Your task to perform on an android device: Open the calendar app, open the side menu, and click the "Day" option Image 0: 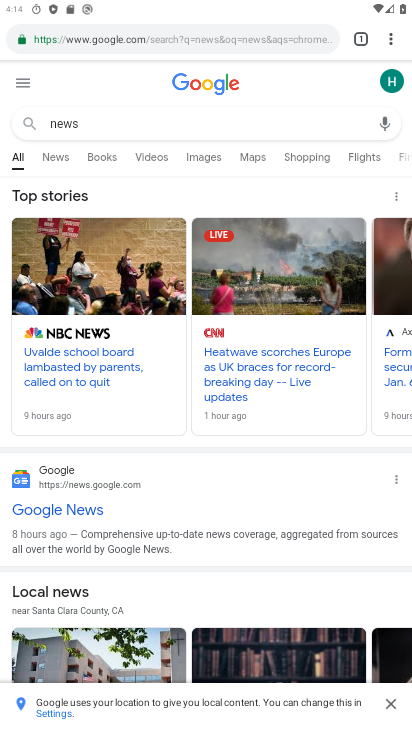
Step 0: press home button
Your task to perform on an android device: Open the calendar app, open the side menu, and click the "Day" option Image 1: 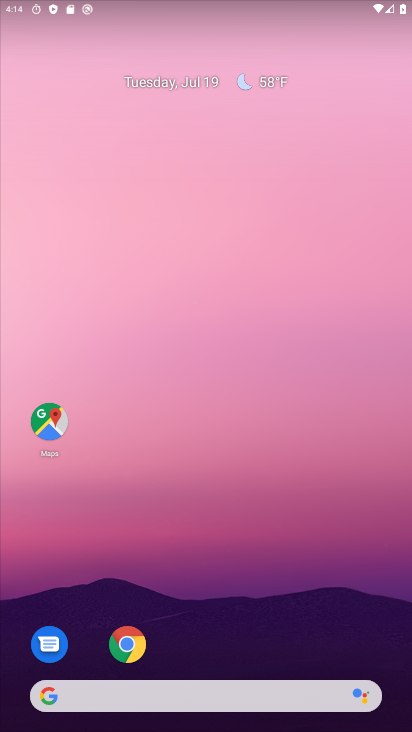
Step 1: drag from (332, 626) to (301, 54)
Your task to perform on an android device: Open the calendar app, open the side menu, and click the "Day" option Image 2: 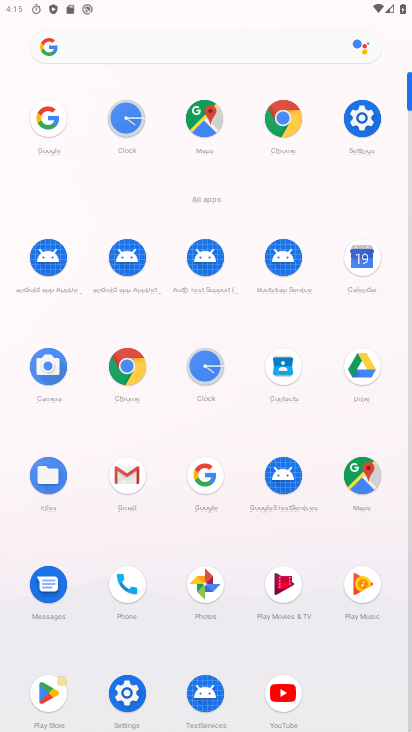
Step 2: click (350, 256)
Your task to perform on an android device: Open the calendar app, open the side menu, and click the "Day" option Image 3: 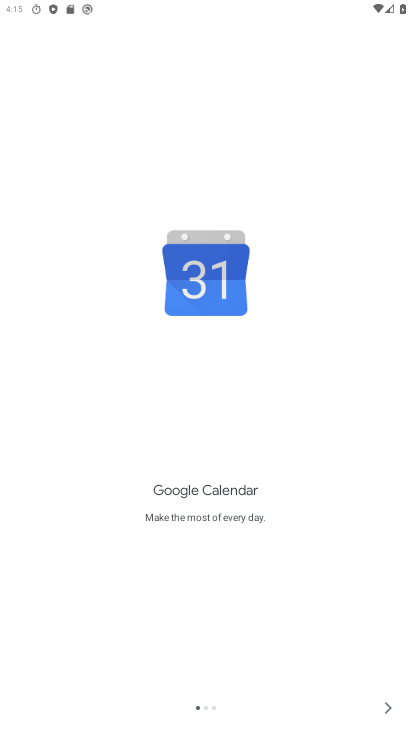
Step 3: click (391, 710)
Your task to perform on an android device: Open the calendar app, open the side menu, and click the "Day" option Image 4: 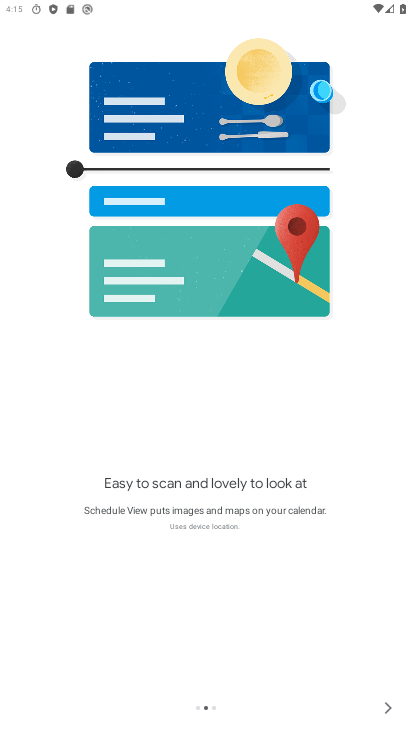
Step 4: click (391, 705)
Your task to perform on an android device: Open the calendar app, open the side menu, and click the "Day" option Image 5: 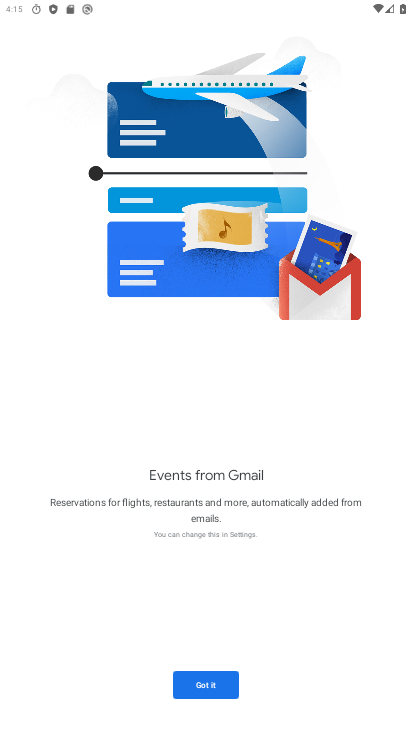
Step 5: click (229, 698)
Your task to perform on an android device: Open the calendar app, open the side menu, and click the "Day" option Image 6: 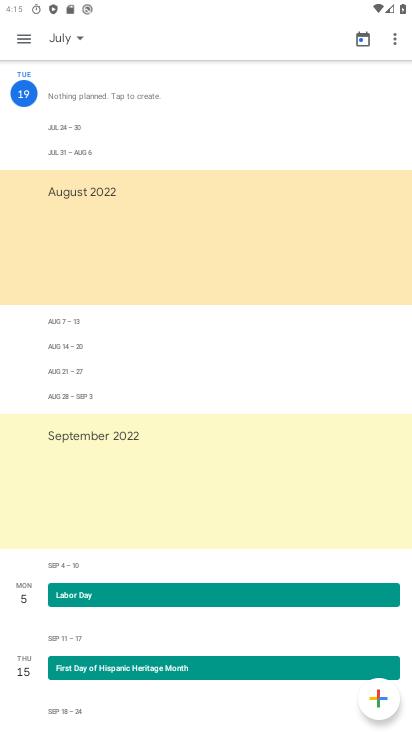
Step 6: click (16, 31)
Your task to perform on an android device: Open the calendar app, open the side menu, and click the "Day" option Image 7: 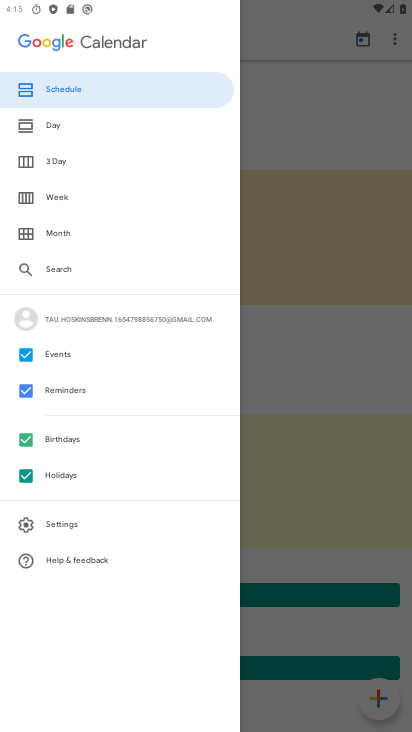
Step 7: click (62, 125)
Your task to perform on an android device: Open the calendar app, open the side menu, and click the "Day" option Image 8: 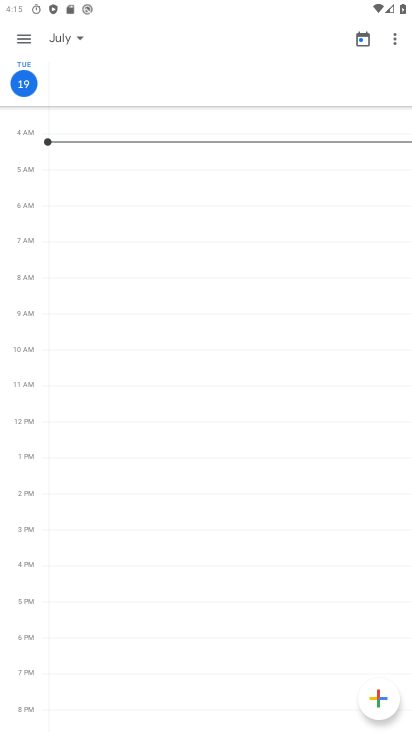
Step 8: task complete